Your task to perform on an android device: Do I have any events tomorrow? Image 0: 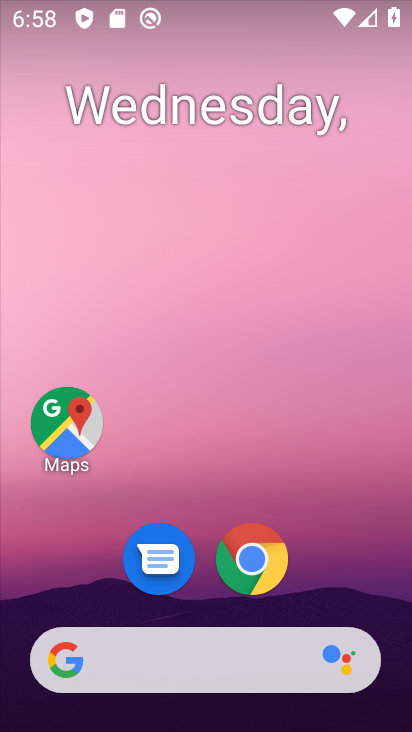
Step 0: drag from (336, 511) to (330, 4)
Your task to perform on an android device: Do I have any events tomorrow? Image 1: 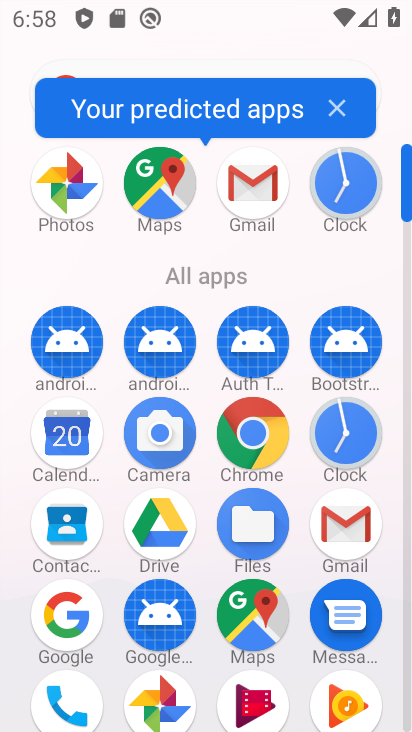
Step 1: click (71, 425)
Your task to perform on an android device: Do I have any events tomorrow? Image 2: 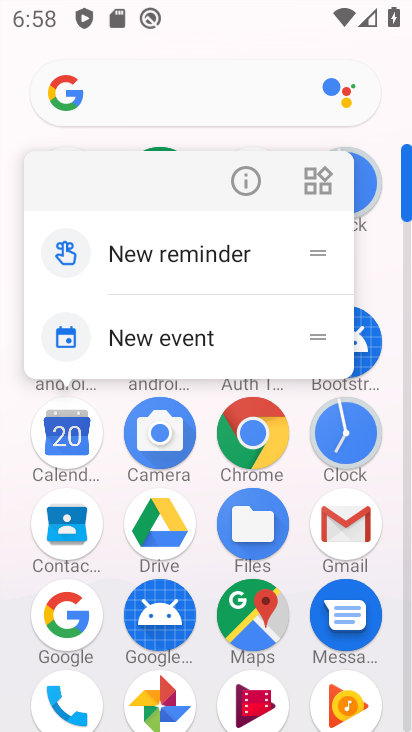
Step 2: click (61, 434)
Your task to perform on an android device: Do I have any events tomorrow? Image 3: 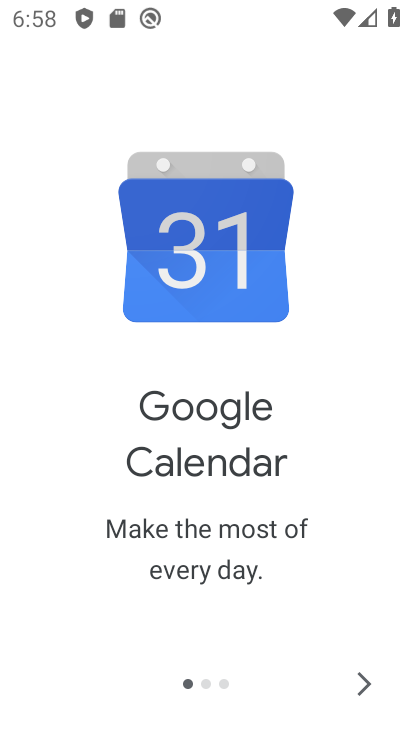
Step 3: click (365, 688)
Your task to perform on an android device: Do I have any events tomorrow? Image 4: 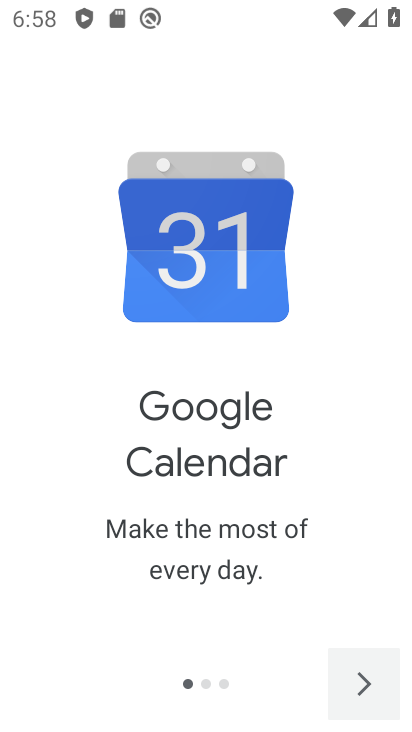
Step 4: click (365, 688)
Your task to perform on an android device: Do I have any events tomorrow? Image 5: 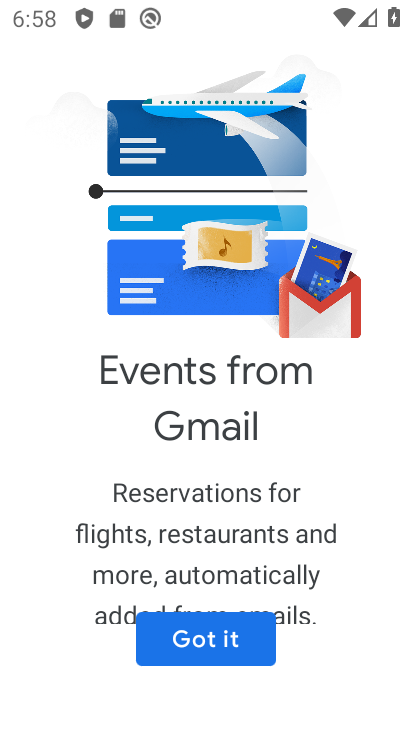
Step 5: click (189, 647)
Your task to perform on an android device: Do I have any events tomorrow? Image 6: 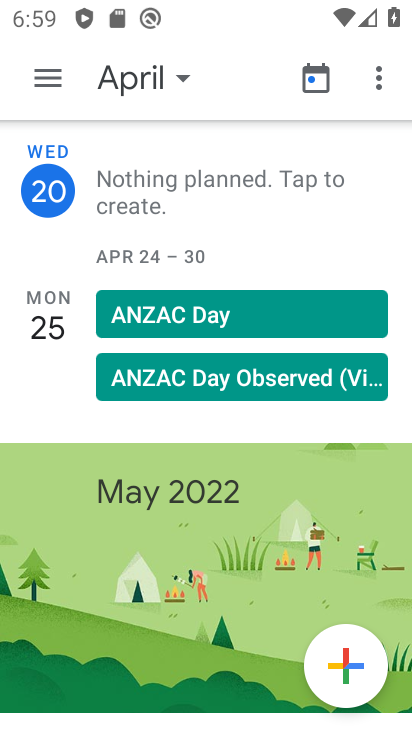
Step 6: click (168, 82)
Your task to perform on an android device: Do I have any events tomorrow? Image 7: 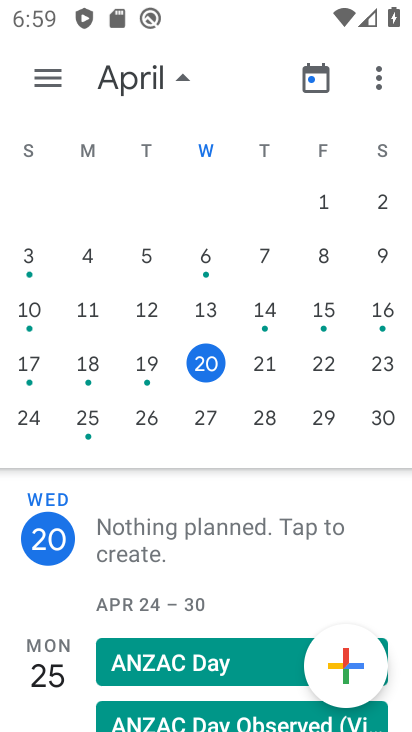
Step 7: click (257, 350)
Your task to perform on an android device: Do I have any events tomorrow? Image 8: 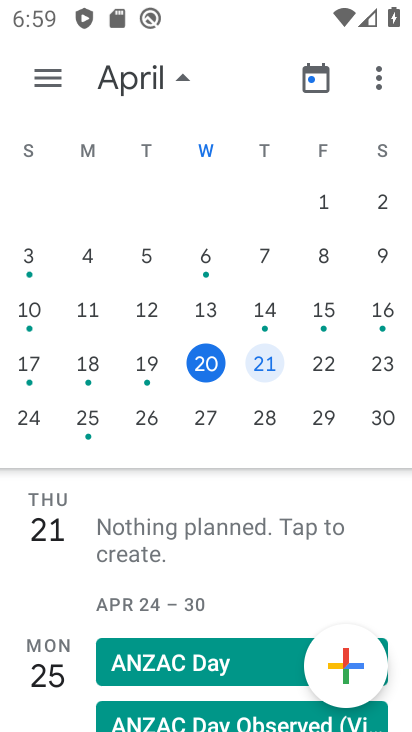
Step 8: task complete